Your task to perform on an android device: change the clock style Image 0: 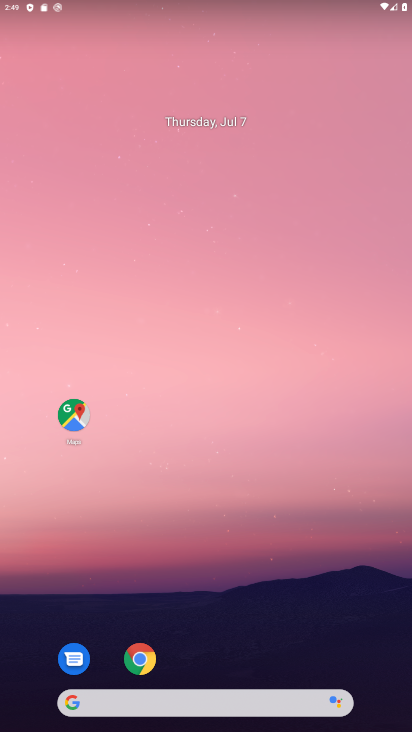
Step 0: drag from (275, 612) to (218, 111)
Your task to perform on an android device: change the clock style Image 1: 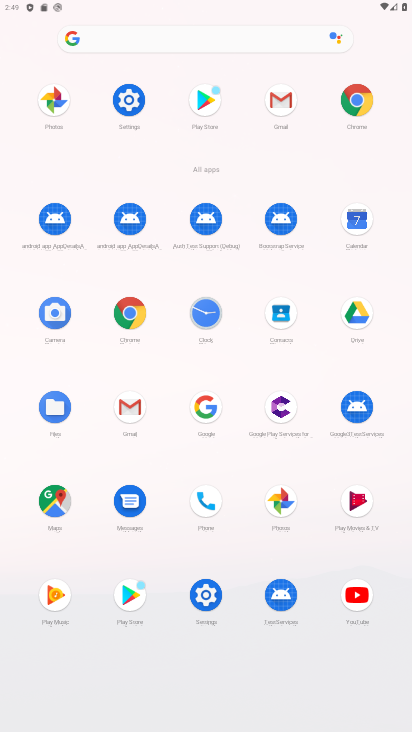
Step 1: click (208, 317)
Your task to perform on an android device: change the clock style Image 2: 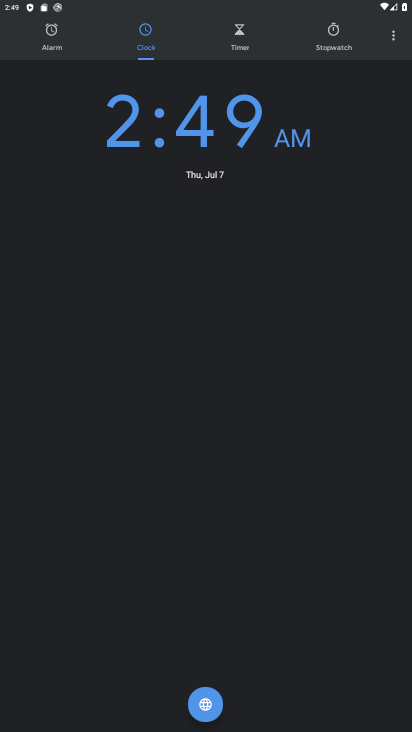
Step 2: click (394, 45)
Your task to perform on an android device: change the clock style Image 3: 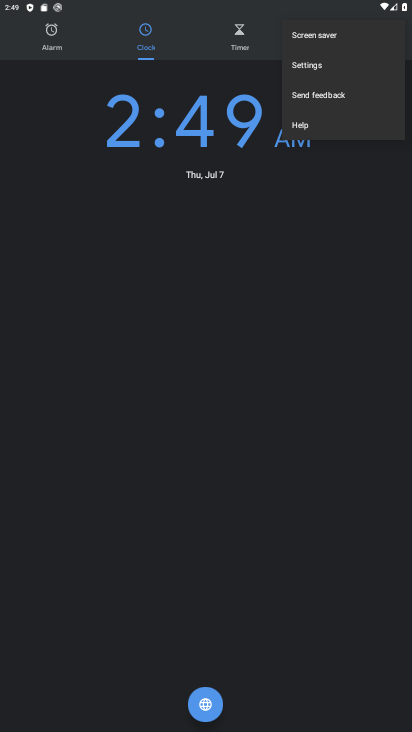
Step 3: click (328, 66)
Your task to perform on an android device: change the clock style Image 4: 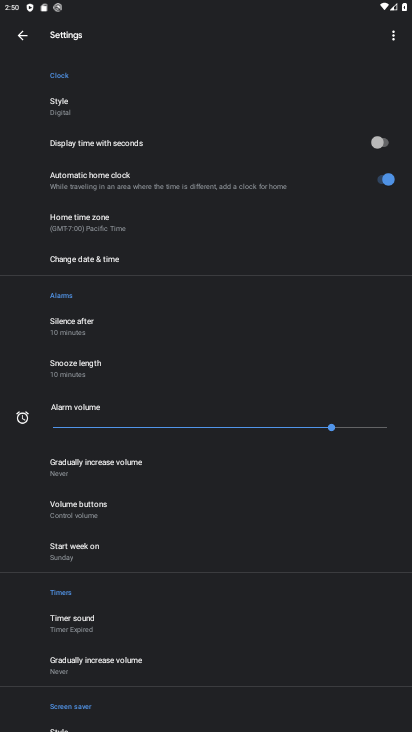
Step 4: click (99, 106)
Your task to perform on an android device: change the clock style Image 5: 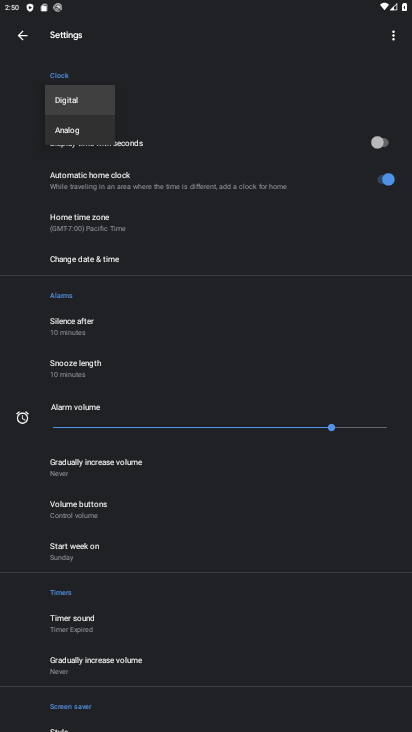
Step 5: click (94, 130)
Your task to perform on an android device: change the clock style Image 6: 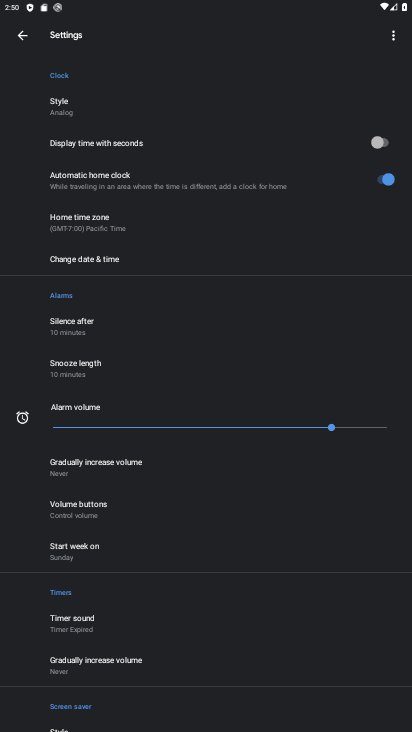
Step 6: task complete